Your task to perform on an android device: open chrome and create a bookmark for the current page Image 0: 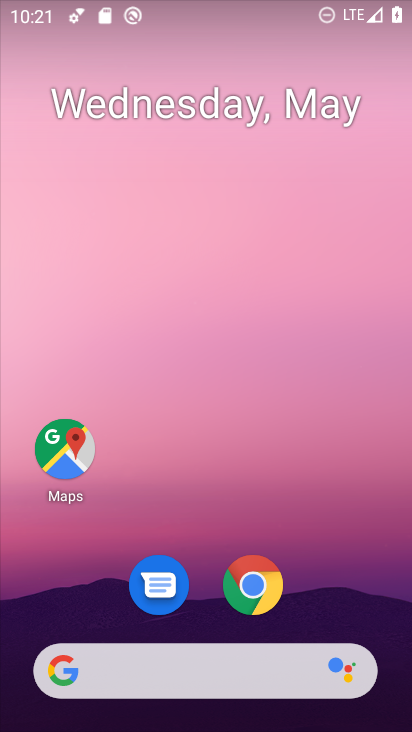
Step 0: click (249, 579)
Your task to perform on an android device: open chrome and create a bookmark for the current page Image 1: 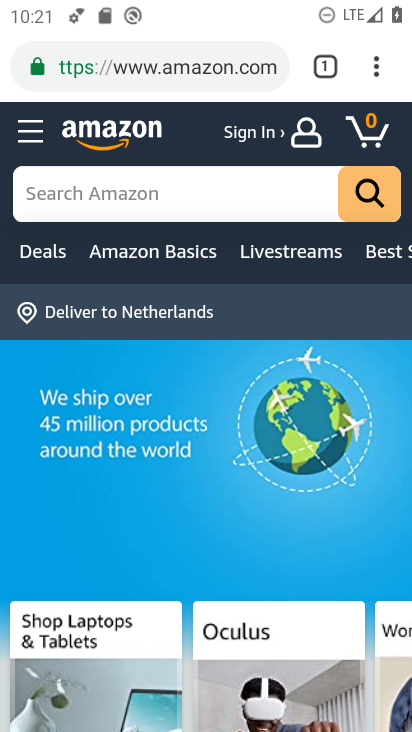
Step 1: click (379, 65)
Your task to perform on an android device: open chrome and create a bookmark for the current page Image 2: 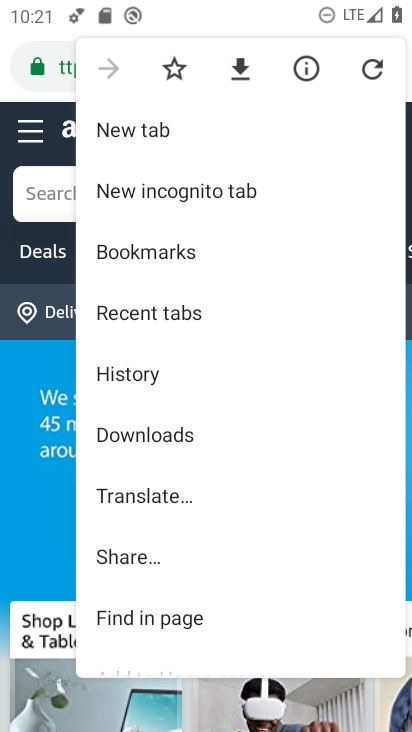
Step 2: click (170, 62)
Your task to perform on an android device: open chrome and create a bookmark for the current page Image 3: 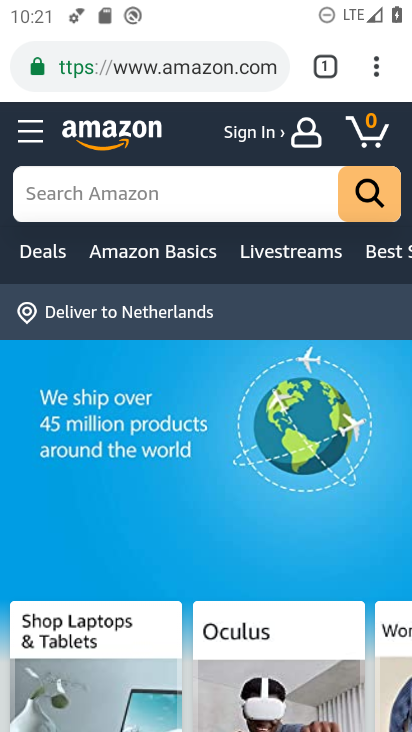
Step 3: task complete